Your task to perform on an android device: open a bookmark in the chrome app Image 0: 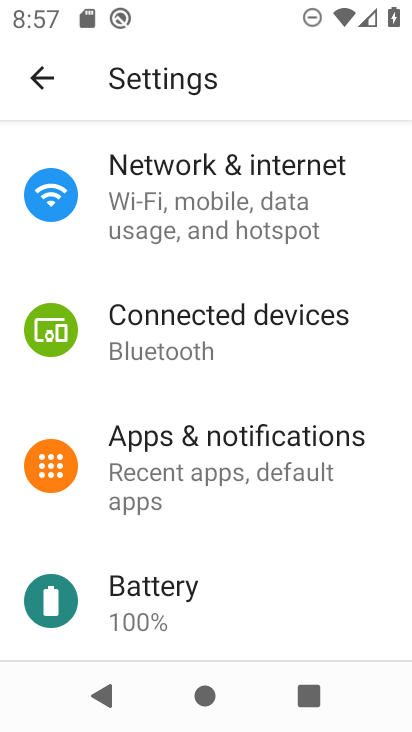
Step 0: press back button
Your task to perform on an android device: open a bookmark in the chrome app Image 1: 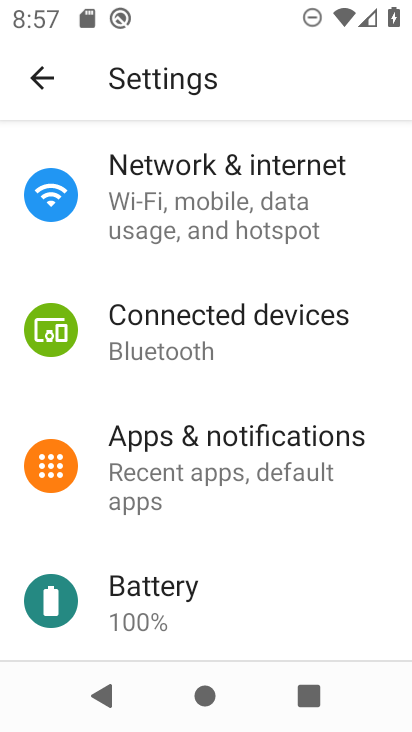
Step 1: press back button
Your task to perform on an android device: open a bookmark in the chrome app Image 2: 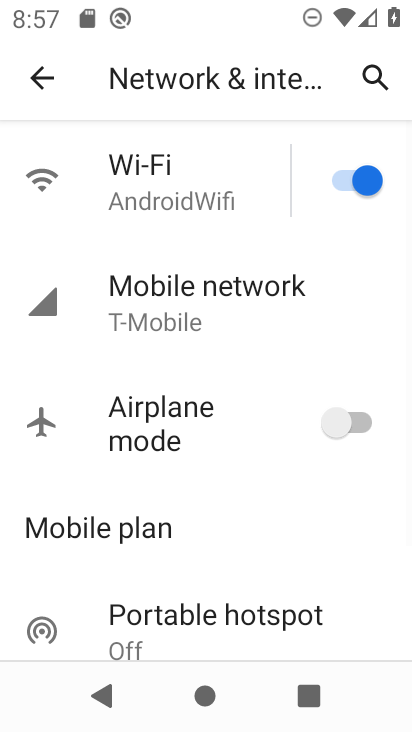
Step 2: press back button
Your task to perform on an android device: open a bookmark in the chrome app Image 3: 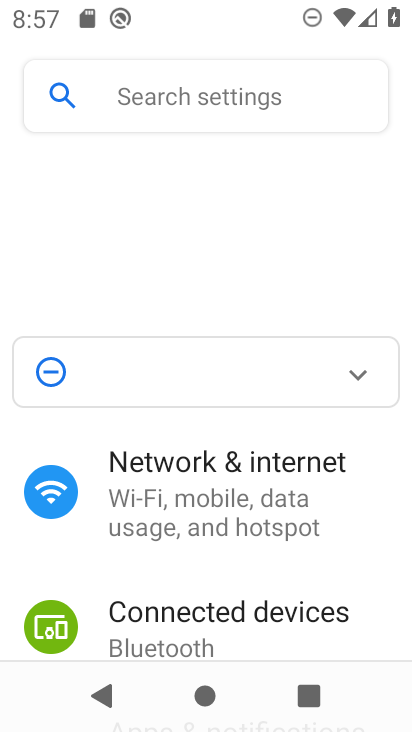
Step 3: press back button
Your task to perform on an android device: open a bookmark in the chrome app Image 4: 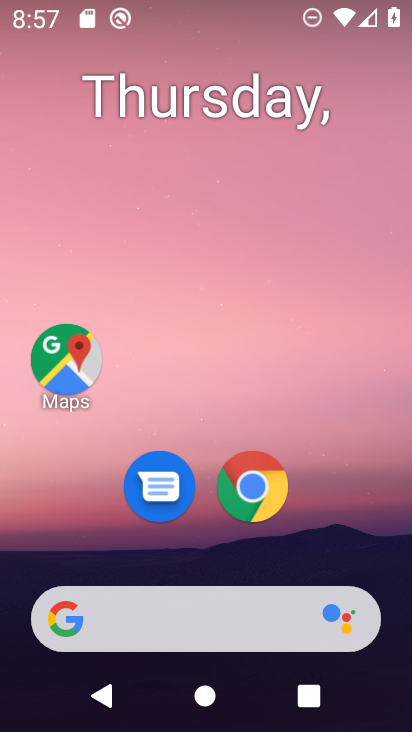
Step 4: click (248, 480)
Your task to perform on an android device: open a bookmark in the chrome app Image 5: 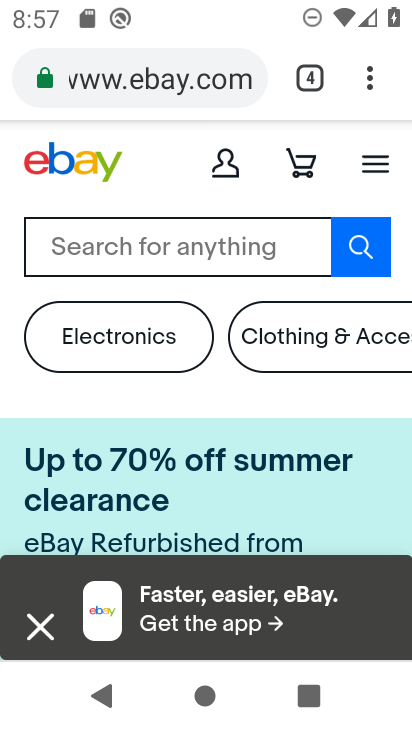
Step 5: drag from (370, 78) to (193, 304)
Your task to perform on an android device: open a bookmark in the chrome app Image 6: 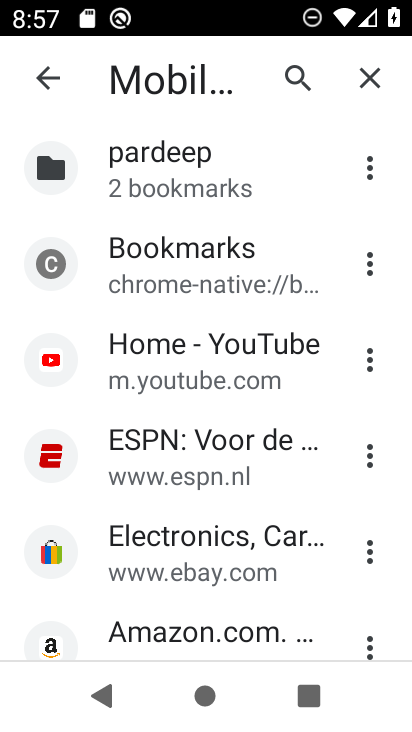
Step 6: click (159, 351)
Your task to perform on an android device: open a bookmark in the chrome app Image 7: 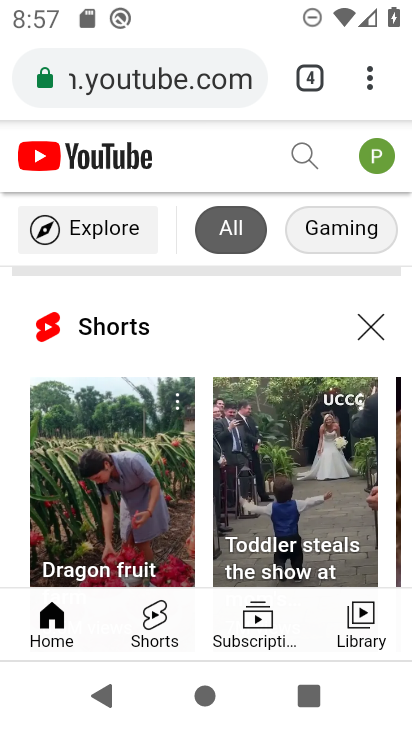
Step 7: task complete